Your task to perform on an android device: toggle sleep mode Image 0: 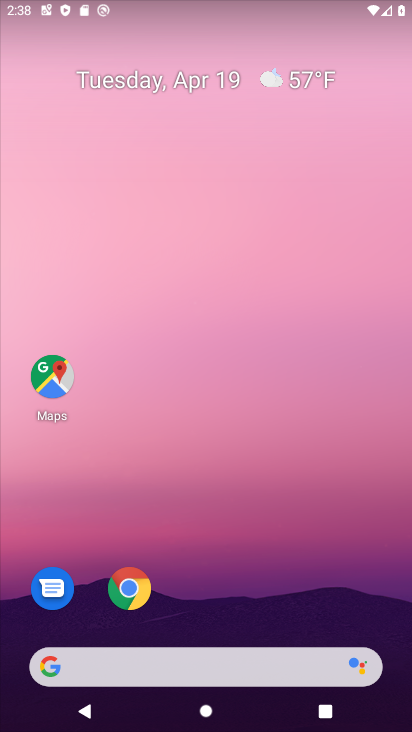
Step 0: drag from (338, 529) to (391, 53)
Your task to perform on an android device: toggle sleep mode Image 1: 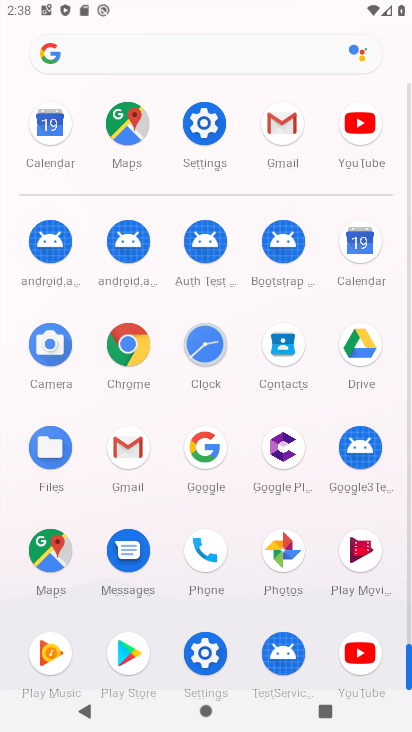
Step 1: click (212, 127)
Your task to perform on an android device: toggle sleep mode Image 2: 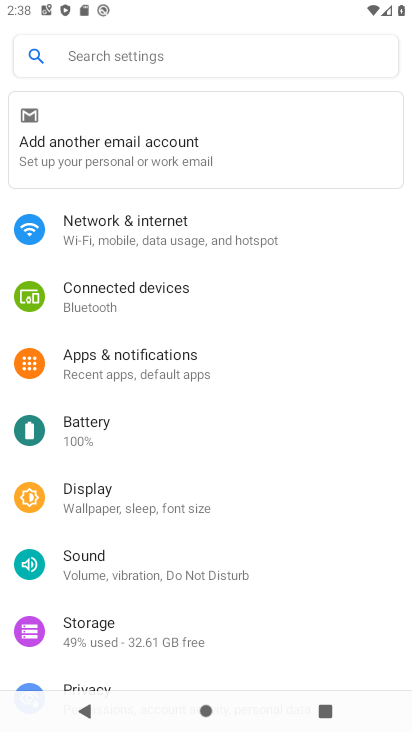
Step 2: click (192, 493)
Your task to perform on an android device: toggle sleep mode Image 3: 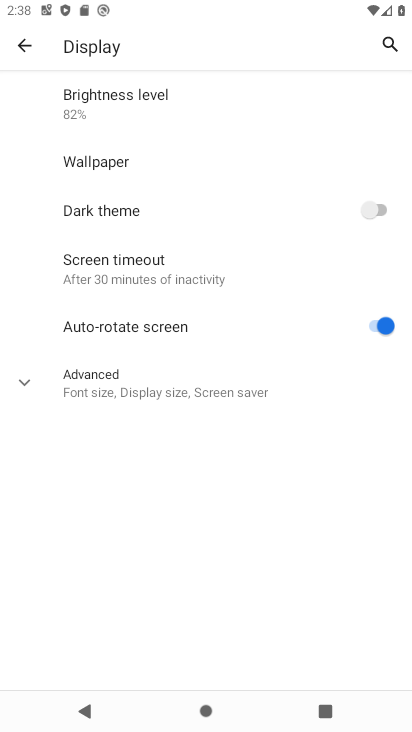
Step 3: click (25, 375)
Your task to perform on an android device: toggle sleep mode Image 4: 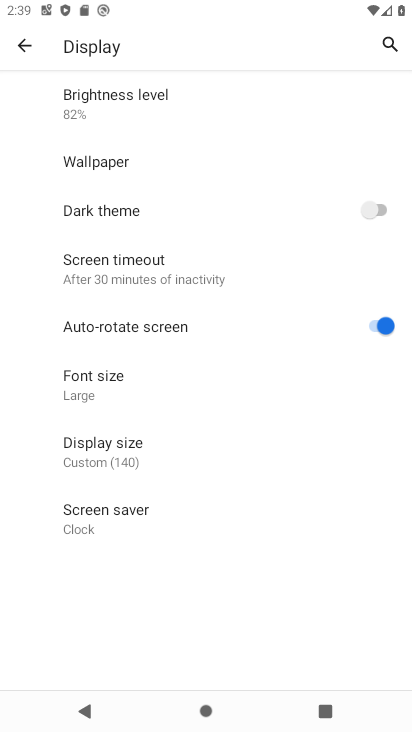
Step 4: task complete